Your task to perform on an android device: change text size in settings app Image 0: 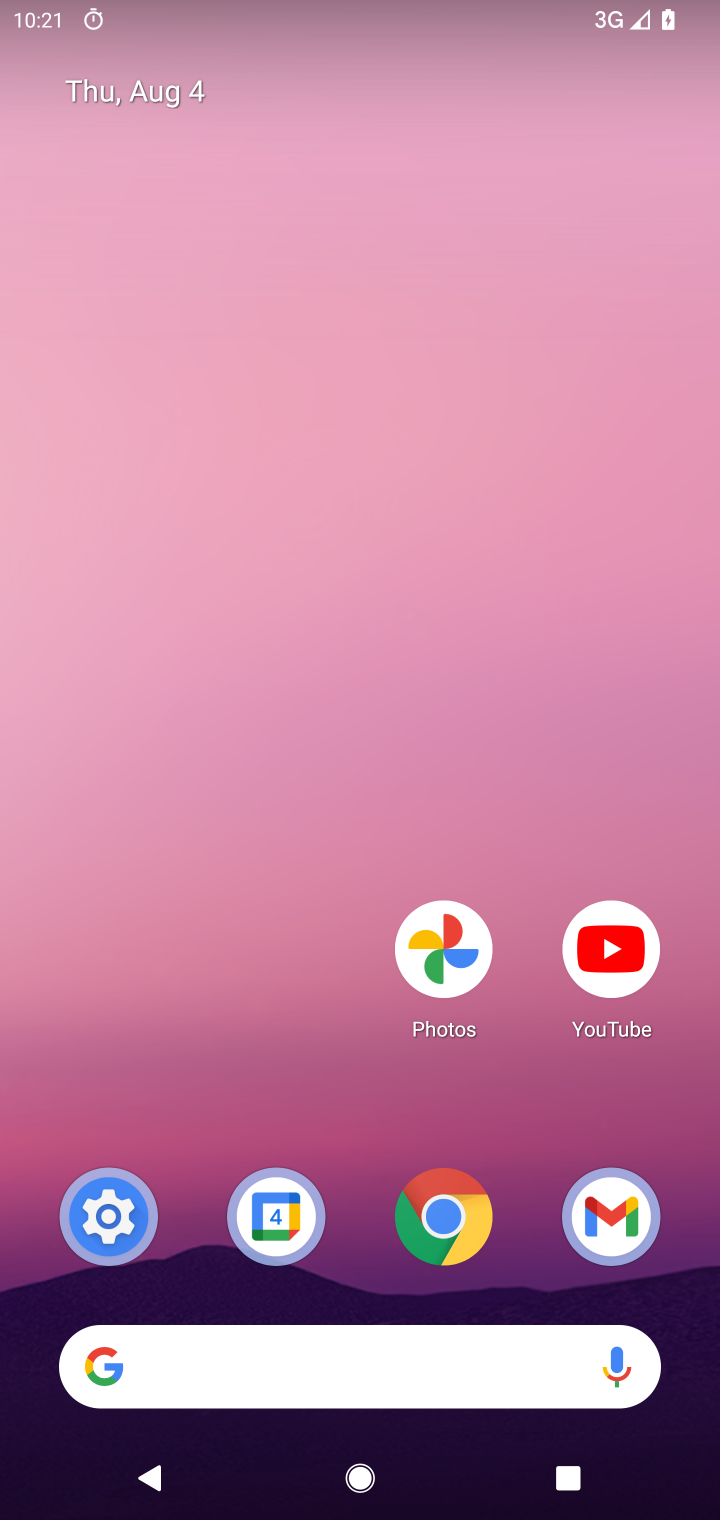
Step 0: drag from (380, 1050) to (348, 156)
Your task to perform on an android device: change text size in settings app Image 1: 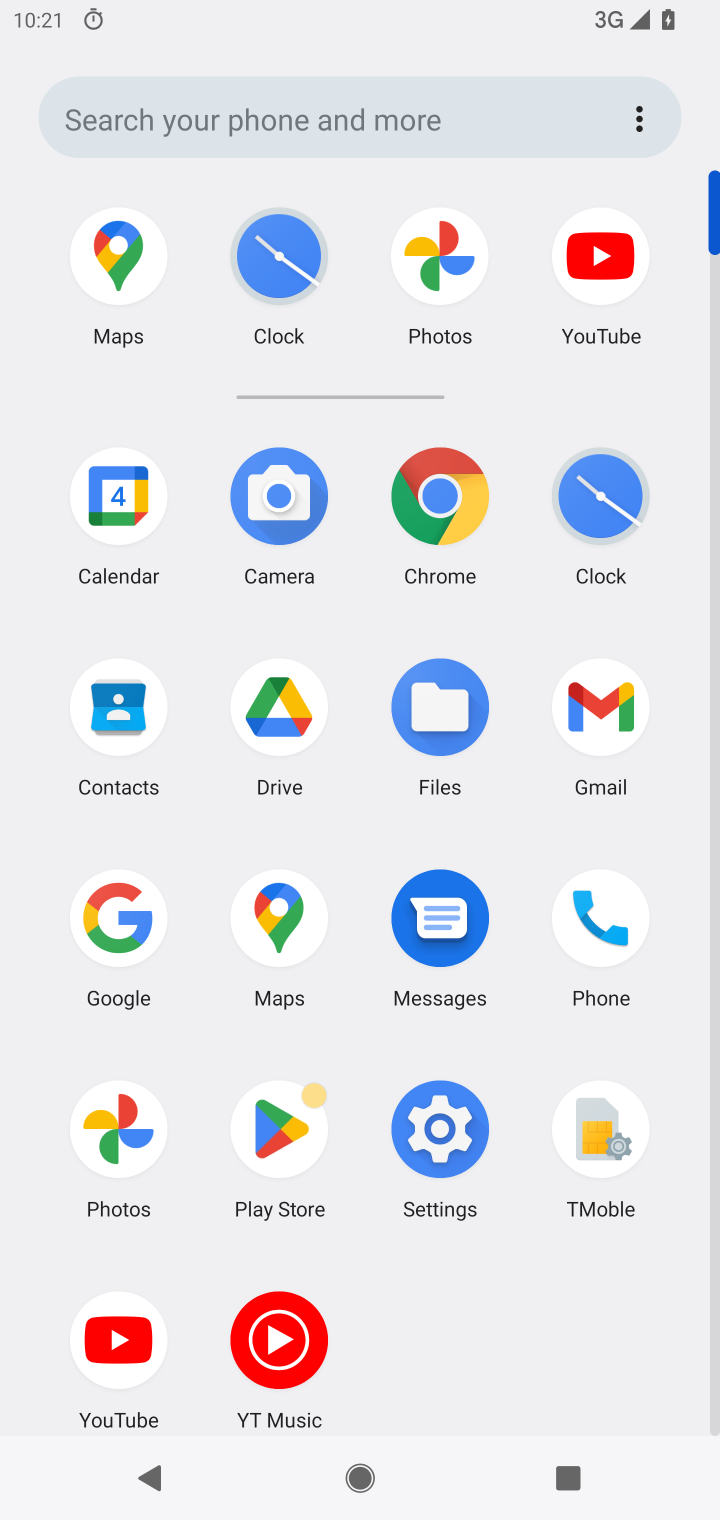
Step 1: click (432, 1128)
Your task to perform on an android device: change text size in settings app Image 2: 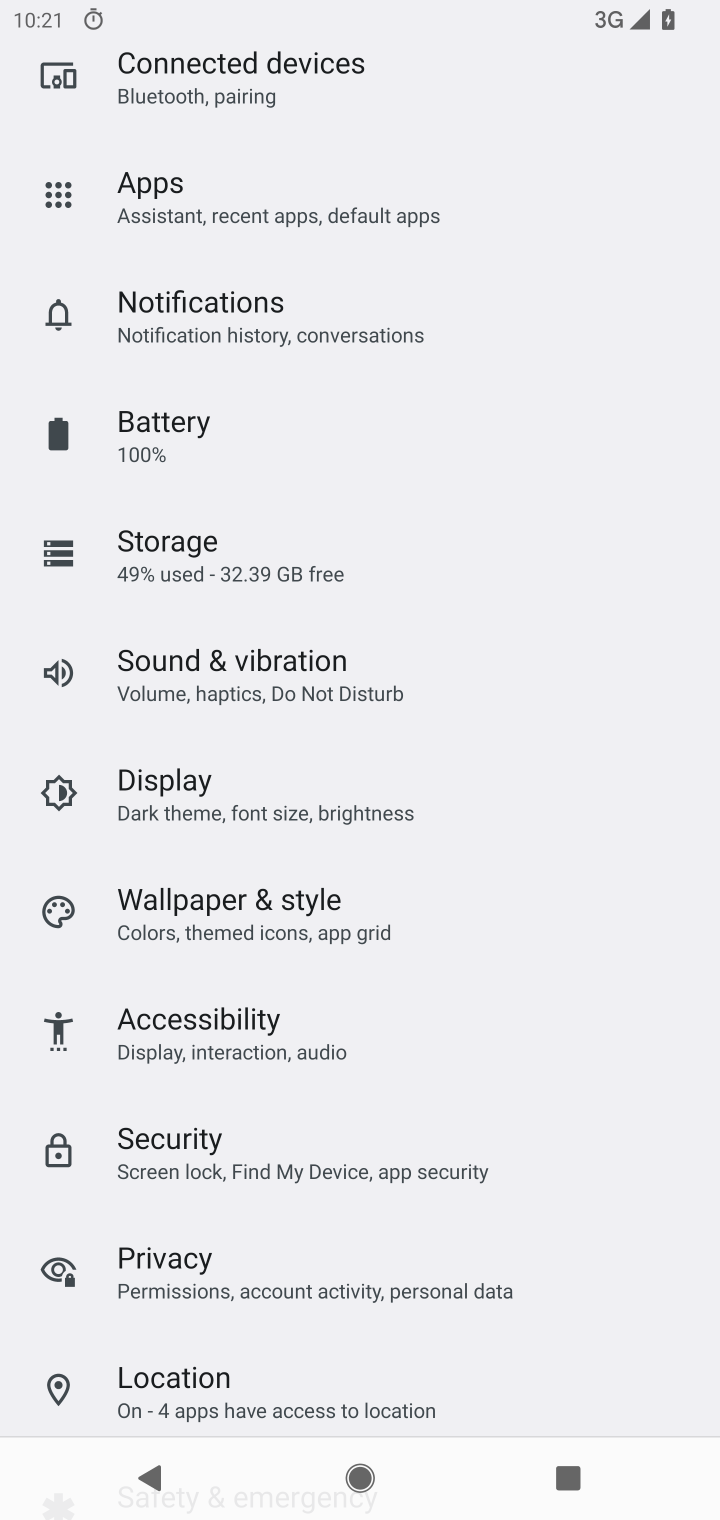
Step 2: drag from (203, 223) to (220, 1080)
Your task to perform on an android device: change text size in settings app Image 3: 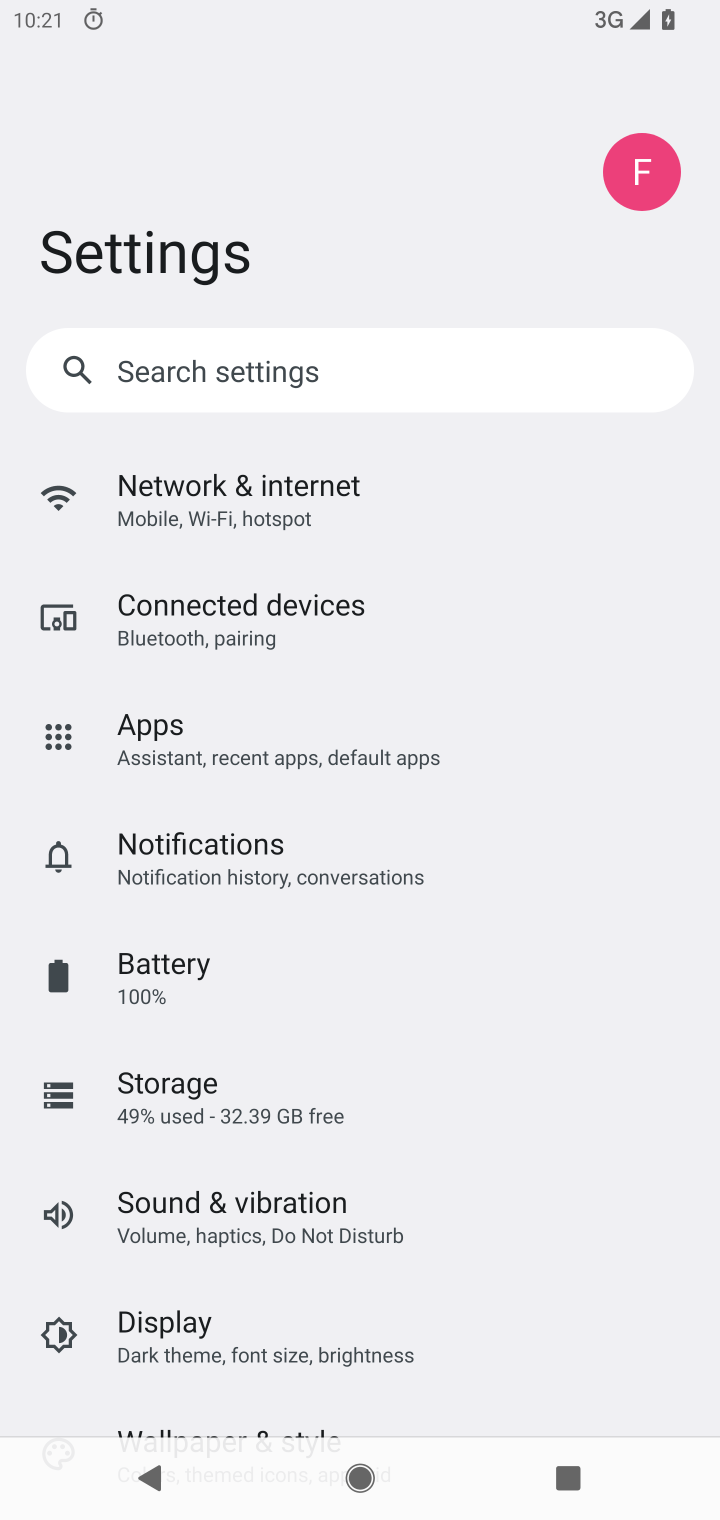
Step 3: click (170, 1354)
Your task to perform on an android device: change text size in settings app Image 4: 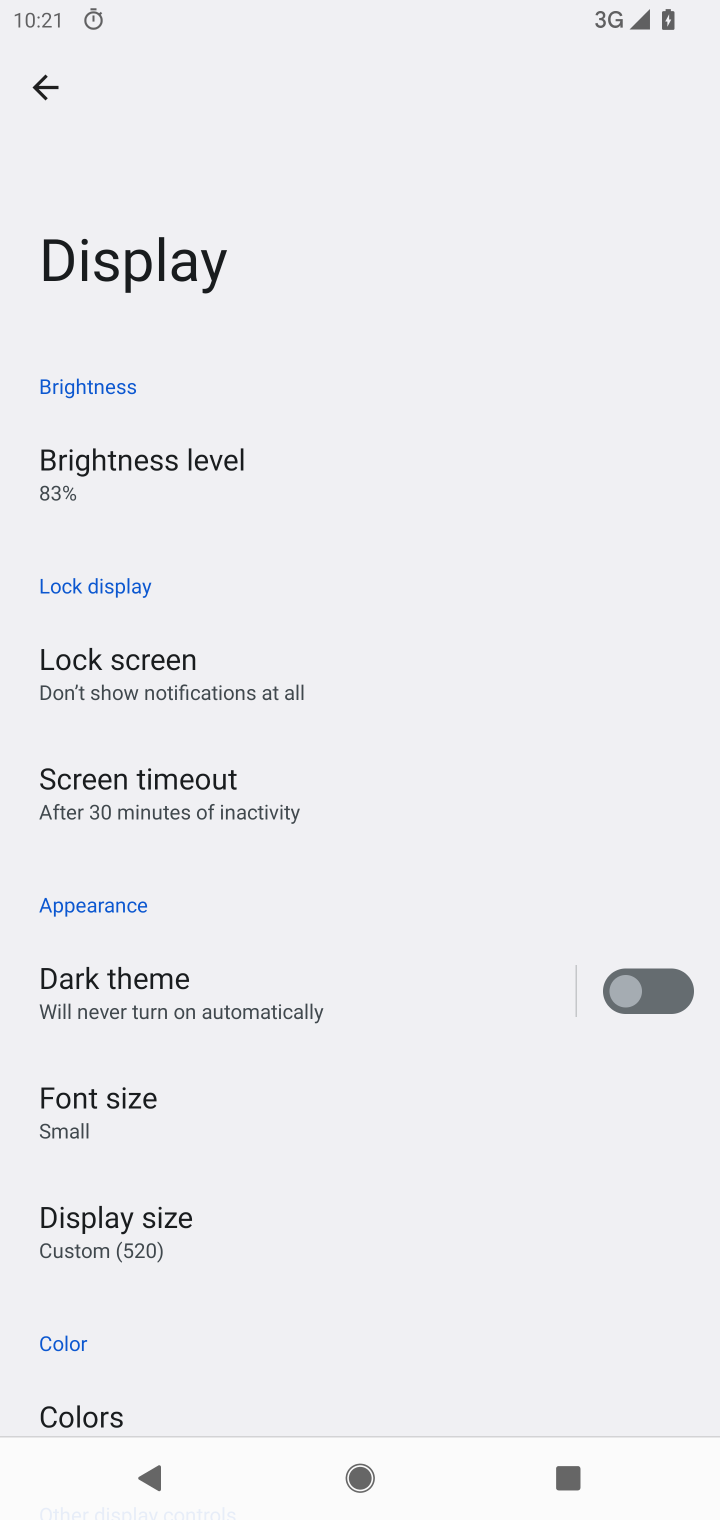
Step 4: click (43, 1115)
Your task to perform on an android device: change text size in settings app Image 5: 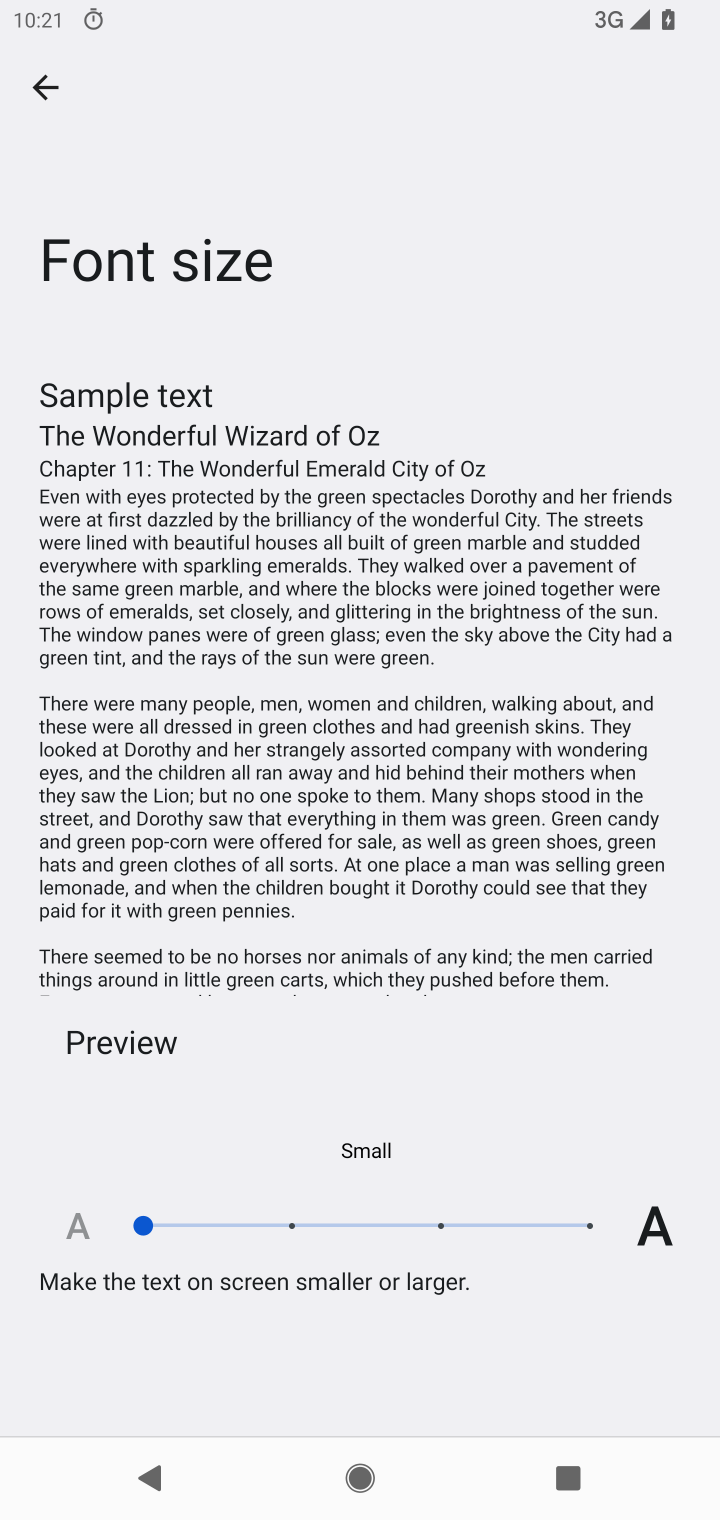
Step 5: click (584, 1220)
Your task to perform on an android device: change text size in settings app Image 6: 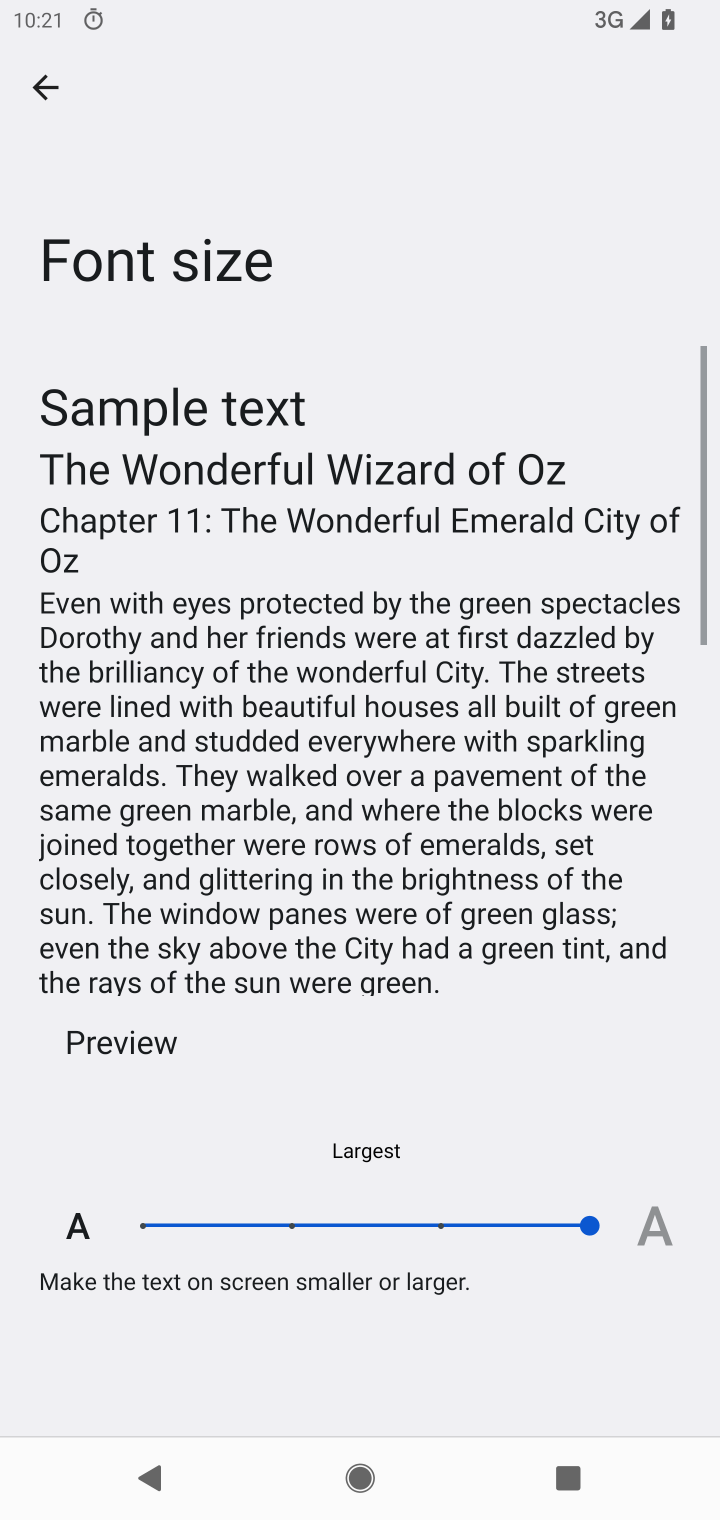
Step 6: task complete